Your task to perform on an android device: toggle priority inbox in the gmail app Image 0: 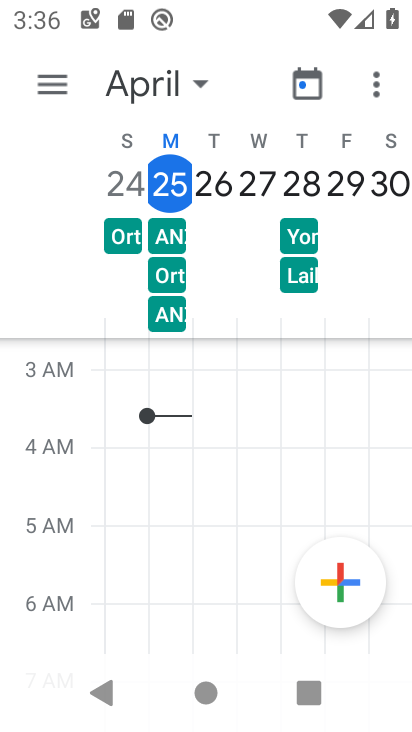
Step 0: press home button
Your task to perform on an android device: toggle priority inbox in the gmail app Image 1: 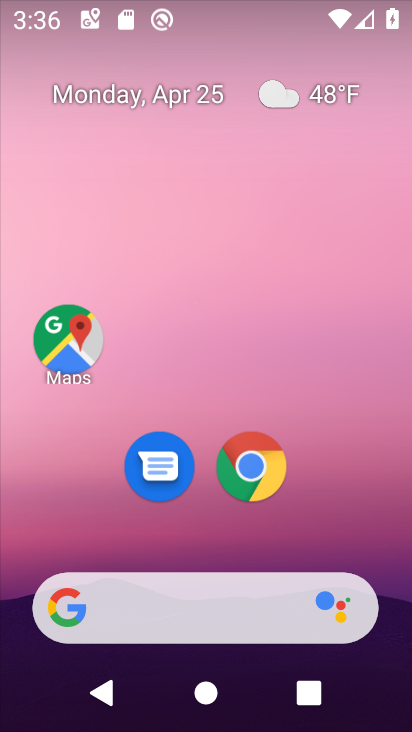
Step 1: drag from (290, 507) to (307, 143)
Your task to perform on an android device: toggle priority inbox in the gmail app Image 2: 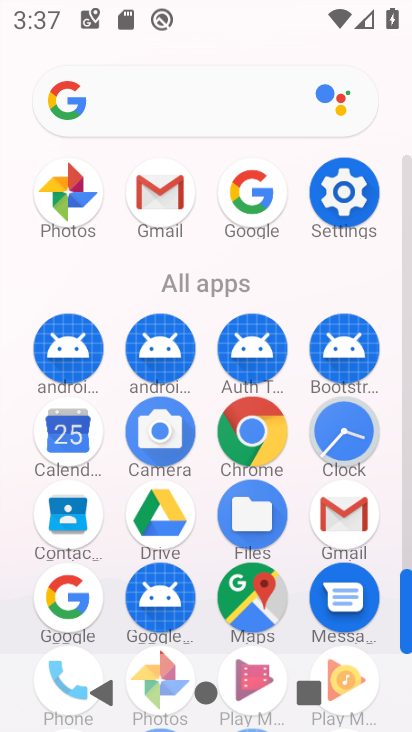
Step 2: click (345, 506)
Your task to perform on an android device: toggle priority inbox in the gmail app Image 3: 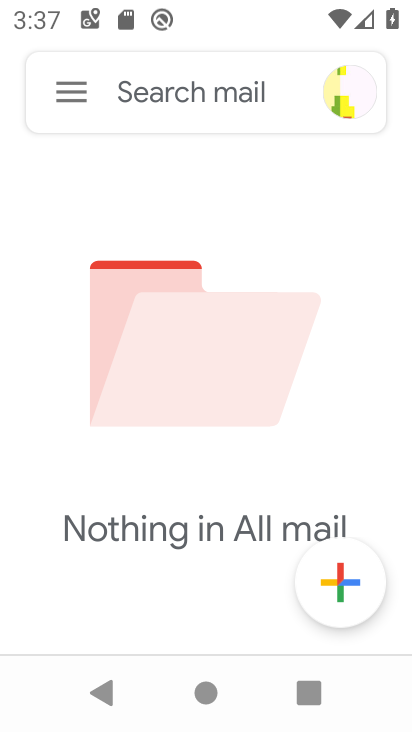
Step 3: click (69, 101)
Your task to perform on an android device: toggle priority inbox in the gmail app Image 4: 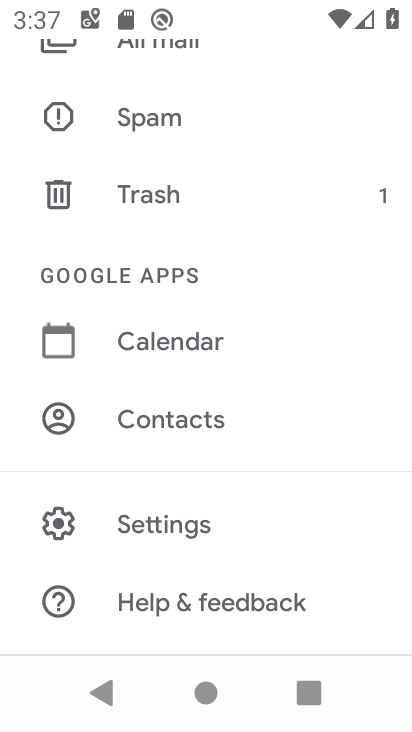
Step 4: click (212, 518)
Your task to perform on an android device: toggle priority inbox in the gmail app Image 5: 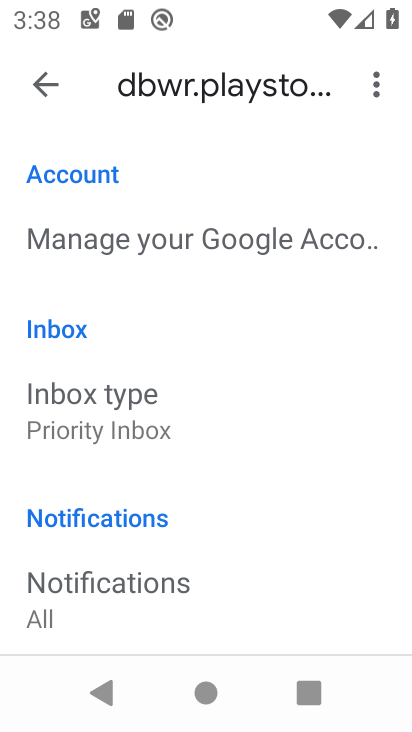
Step 5: click (213, 406)
Your task to perform on an android device: toggle priority inbox in the gmail app Image 6: 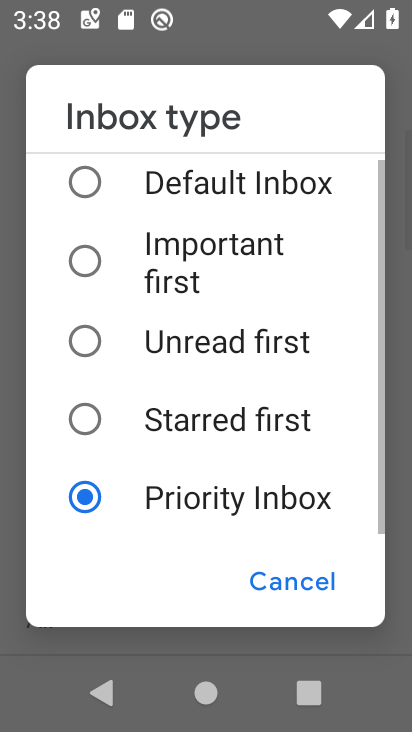
Step 6: click (225, 357)
Your task to perform on an android device: toggle priority inbox in the gmail app Image 7: 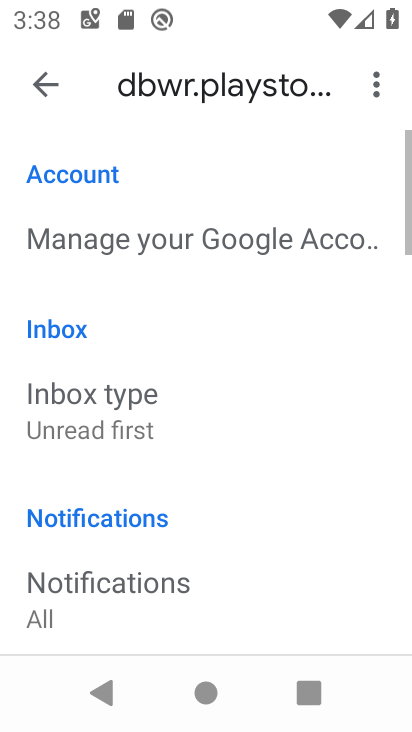
Step 7: task complete